Your task to perform on an android device: Search for sushi restaurants on Maps Image 0: 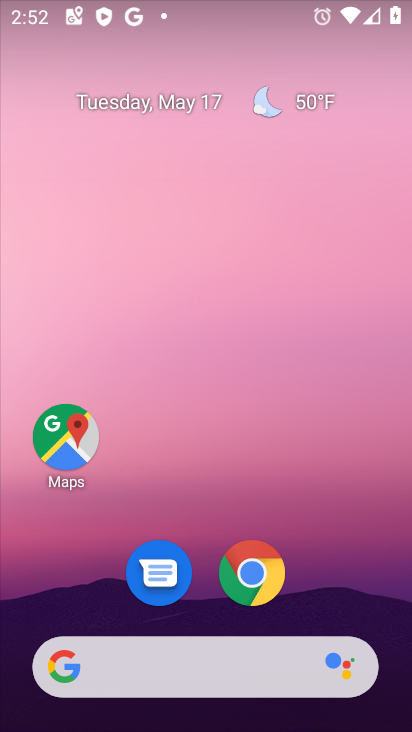
Step 0: click (69, 430)
Your task to perform on an android device: Search for sushi restaurants on Maps Image 1: 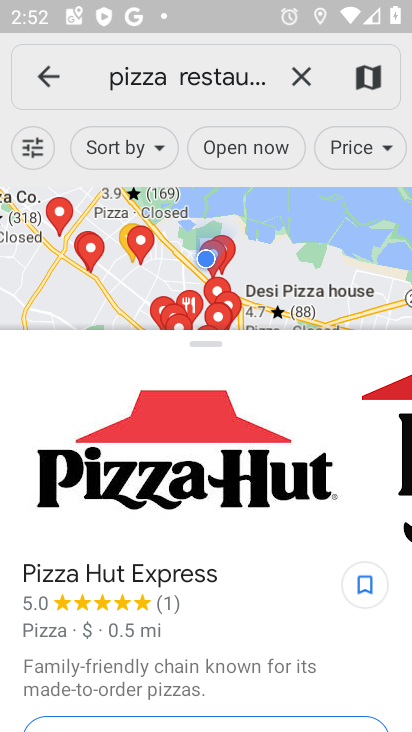
Step 1: click (247, 70)
Your task to perform on an android device: Search for sushi restaurants on Maps Image 2: 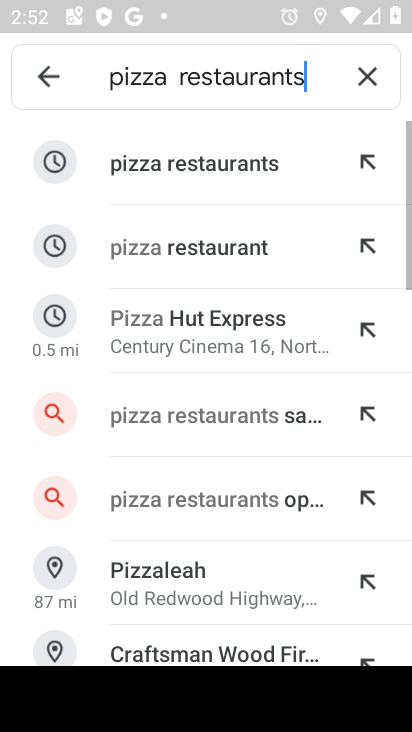
Step 2: click (377, 72)
Your task to perform on an android device: Search for sushi restaurants on Maps Image 3: 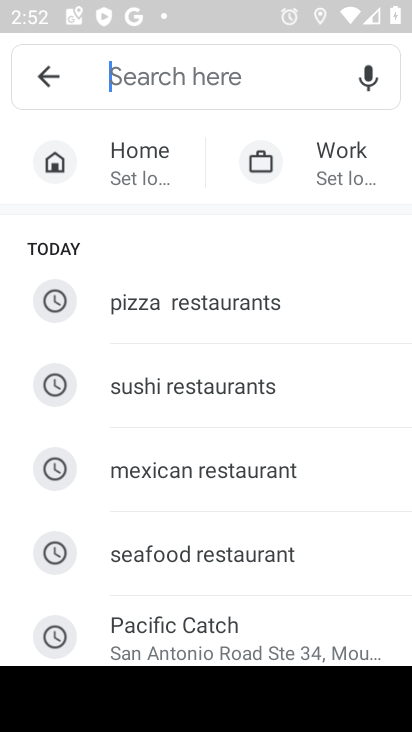
Step 3: click (237, 389)
Your task to perform on an android device: Search for sushi restaurants on Maps Image 4: 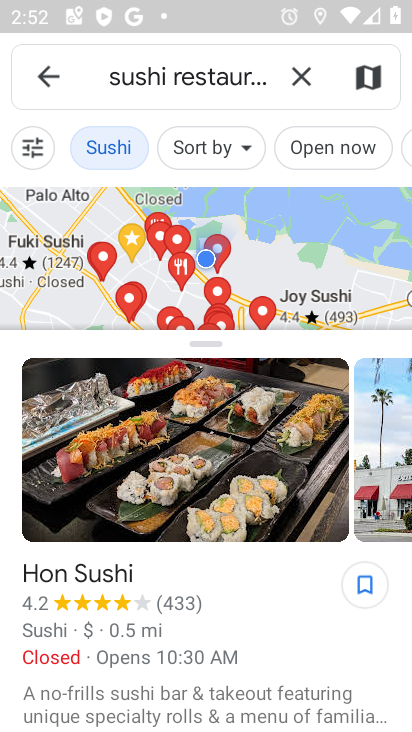
Step 4: task complete